Your task to perform on an android device: Open settings on Google Maps Image 0: 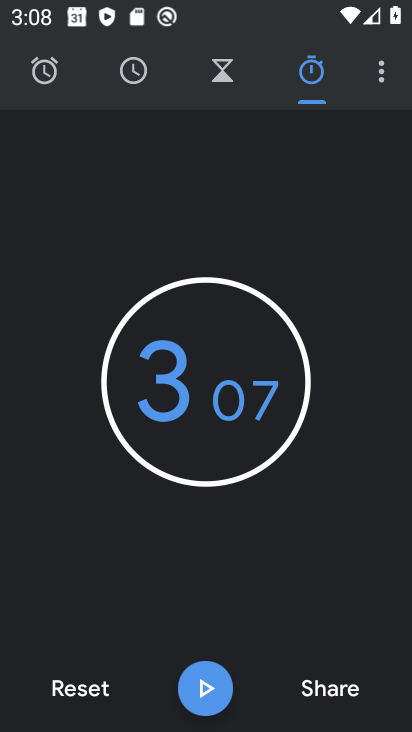
Step 0: press home button
Your task to perform on an android device: Open settings on Google Maps Image 1: 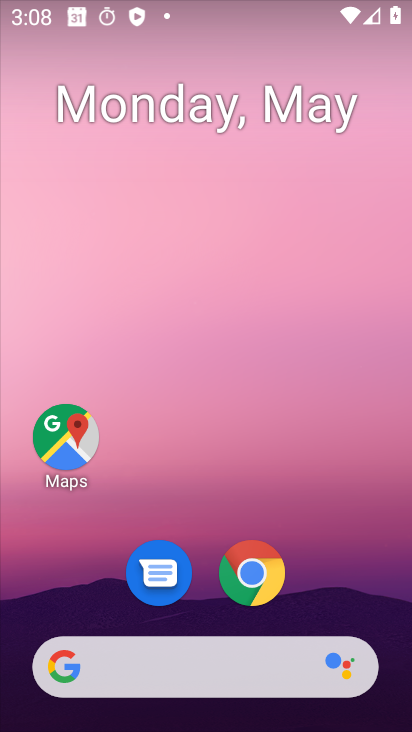
Step 1: click (74, 436)
Your task to perform on an android device: Open settings on Google Maps Image 2: 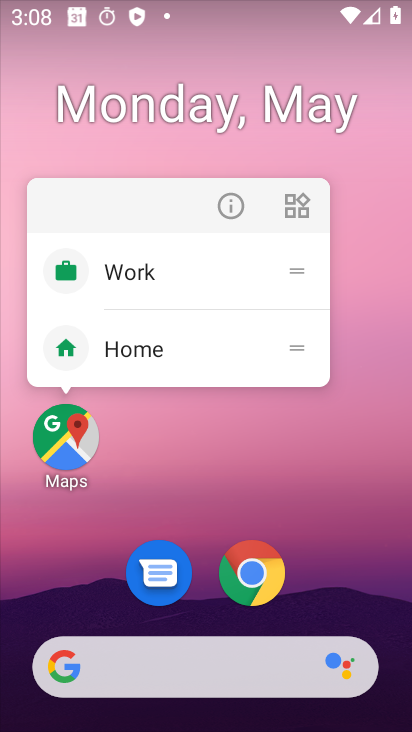
Step 2: click (76, 446)
Your task to perform on an android device: Open settings on Google Maps Image 3: 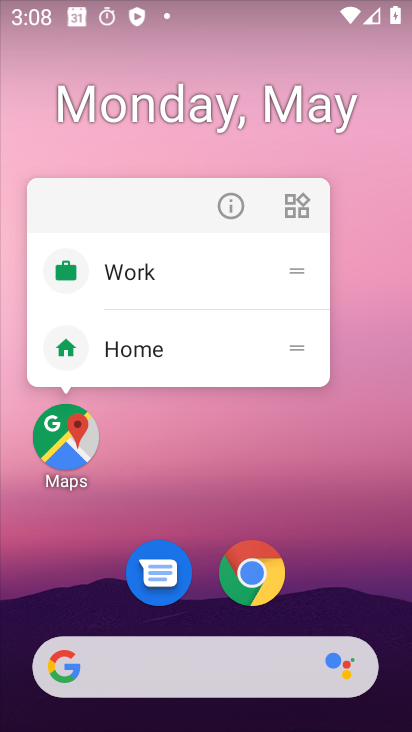
Step 3: click (75, 433)
Your task to perform on an android device: Open settings on Google Maps Image 4: 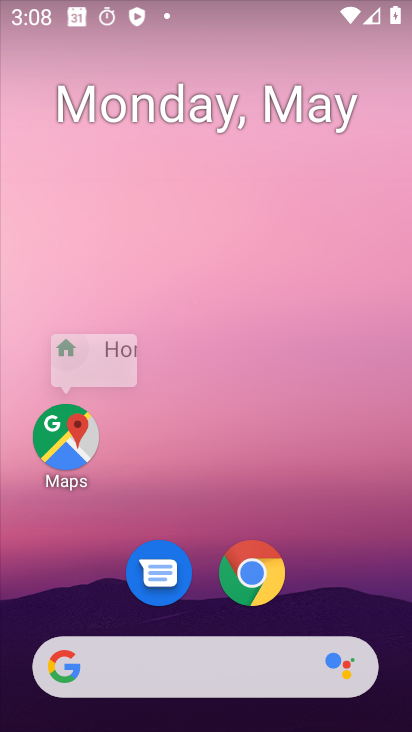
Step 4: click (76, 432)
Your task to perform on an android device: Open settings on Google Maps Image 5: 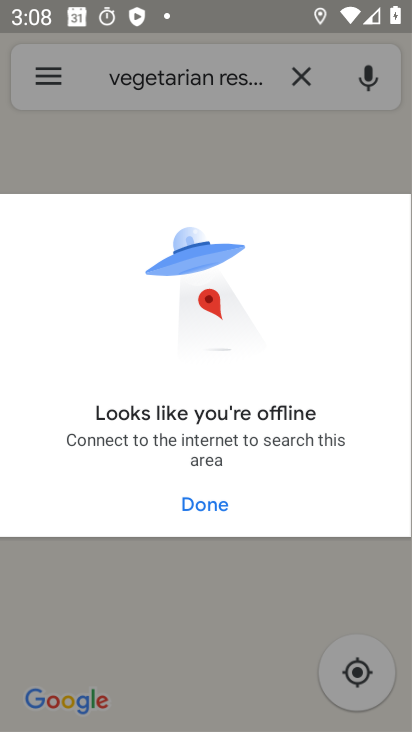
Step 5: click (76, 432)
Your task to perform on an android device: Open settings on Google Maps Image 6: 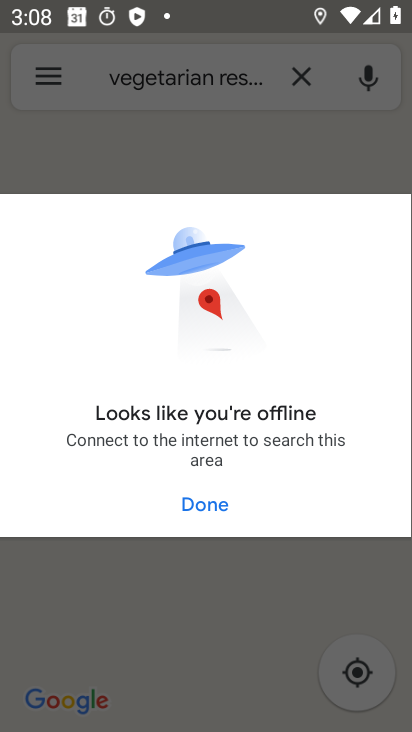
Step 6: click (276, 132)
Your task to perform on an android device: Open settings on Google Maps Image 7: 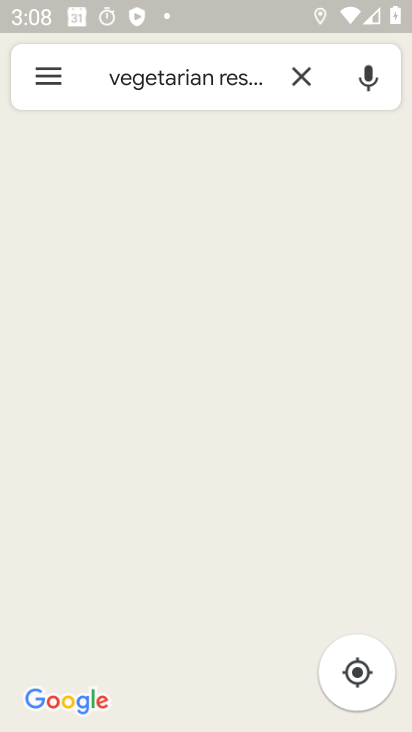
Step 7: click (206, 494)
Your task to perform on an android device: Open settings on Google Maps Image 8: 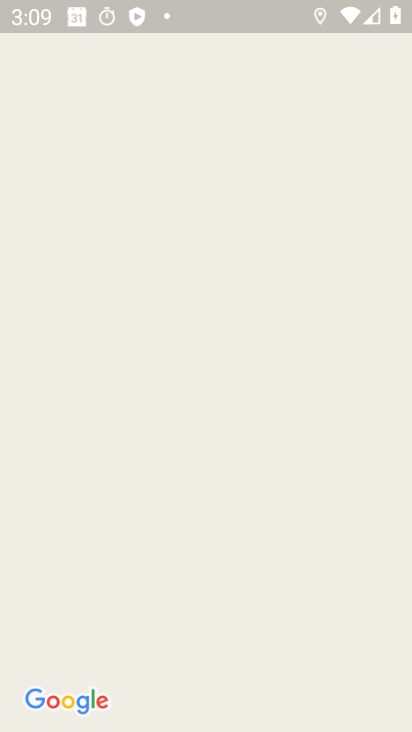
Step 8: click (278, 36)
Your task to perform on an android device: Open settings on Google Maps Image 9: 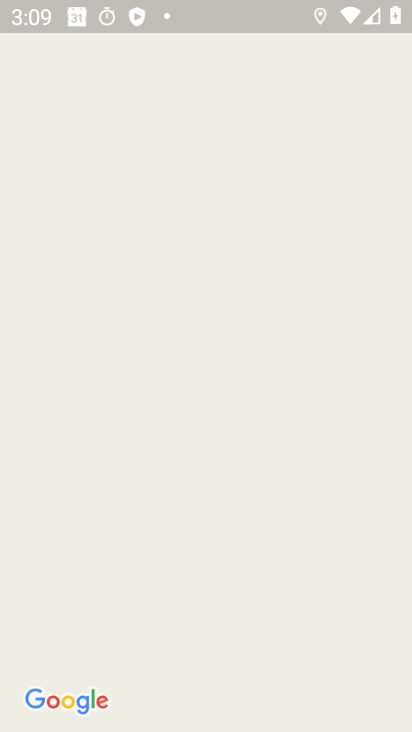
Step 9: drag from (261, 366) to (190, 2)
Your task to perform on an android device: Open settings on Google Maps Image 10: 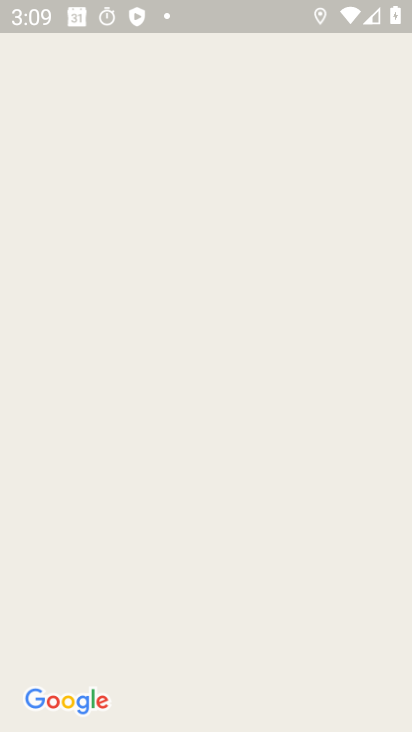
Step 10: press back button
Your task to perform on an android device: Open settings on Google Maps Image 11: 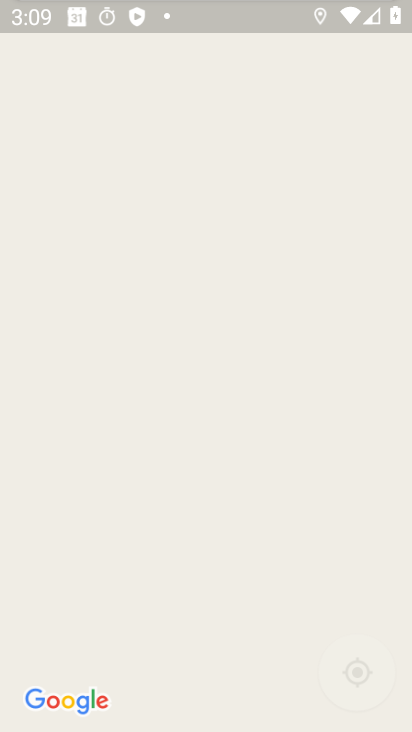
Step 11: drag from (190, 2) to (403, 298)
Your task to perform on an android device: Open settings on Google Maps Image 12: 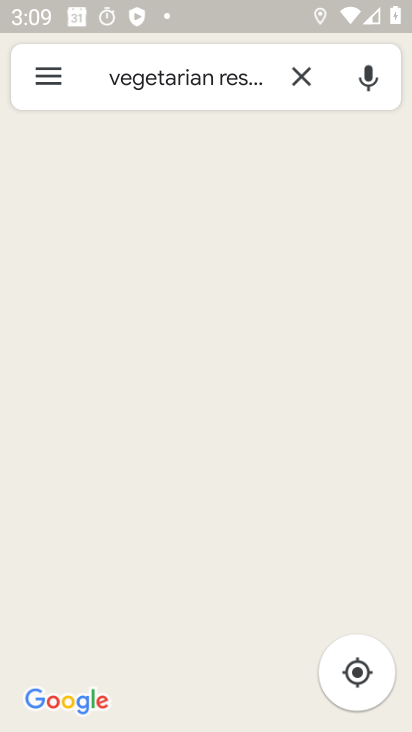
Step 12: click (47, 74)
Your task to perform on an android device: Open settings on Google Maps Image 13: 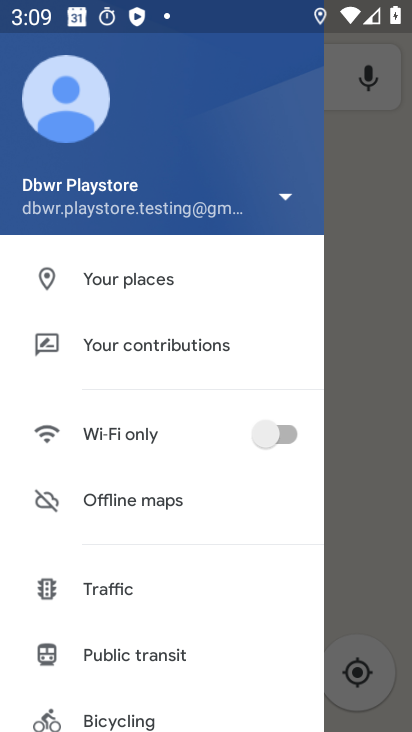
Step 13: drag from (150, 604) to (63, 180)
Your task to perform on an android device: Open settings on Google Maps Image 14: 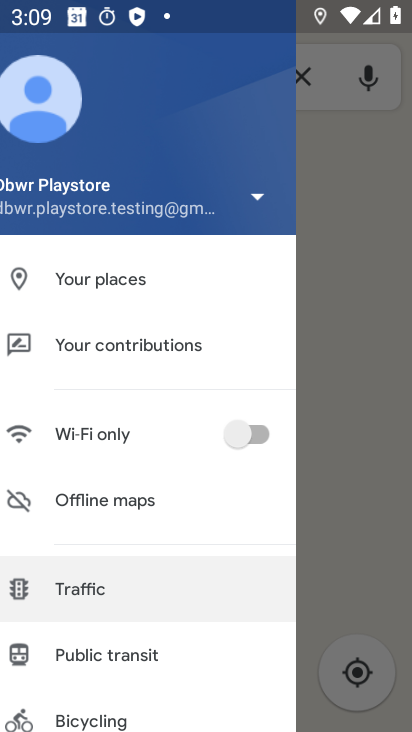
Step 14: drag from (95, 568) to (91, 187)
Your task to perform on an android device: Open settings on Google Maps Image 15: 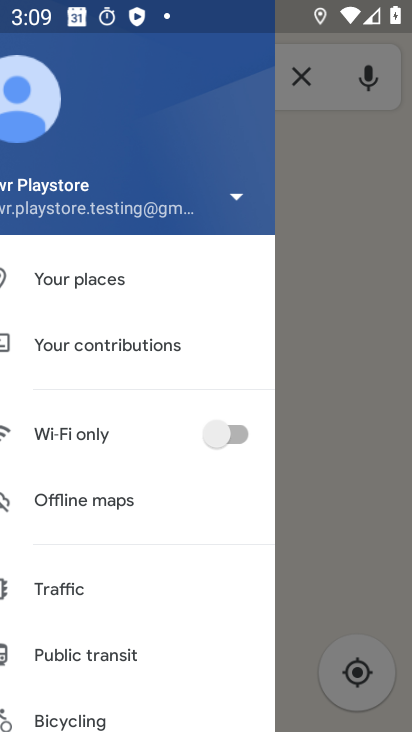
Step 15: drag from (148, 622) to (135, 216)
Your task to perform on an android device: Open settings on Google Maps Image 16: 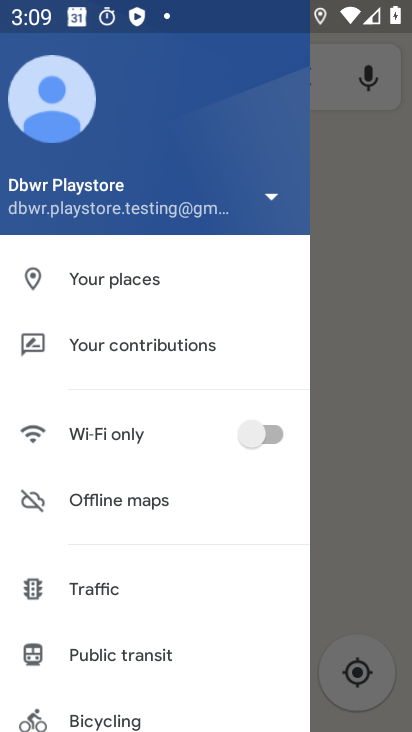
Step 16: drag from (125, 564) to (100, 264)
Your task to perform on an android device: Open settings on Google Maps Image 17: 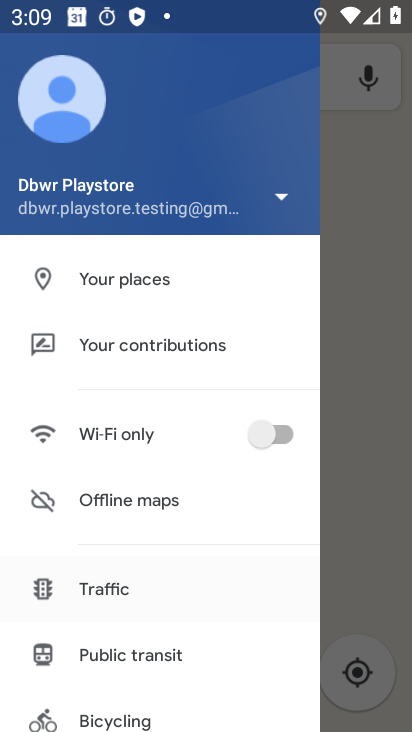
Step 17: drag from (95, 522) to (113, 181)
Your task to perform on an android device: Open settings on Google Maps Image 18: 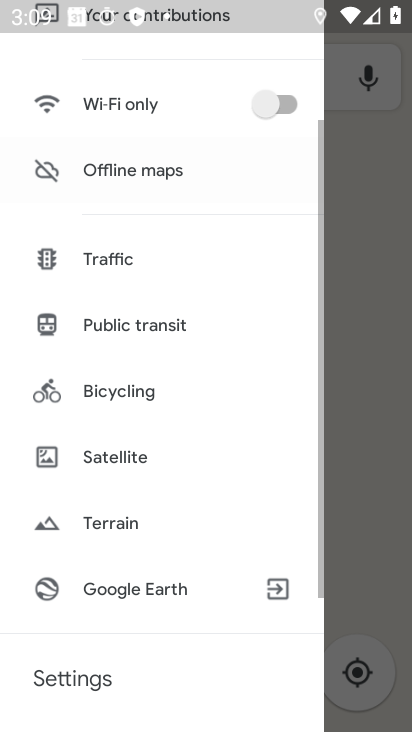
Step 18: drag from (132, 485) to (137, 142)
Your task to perform on an android device: Open settings on Google Maps Image 19: 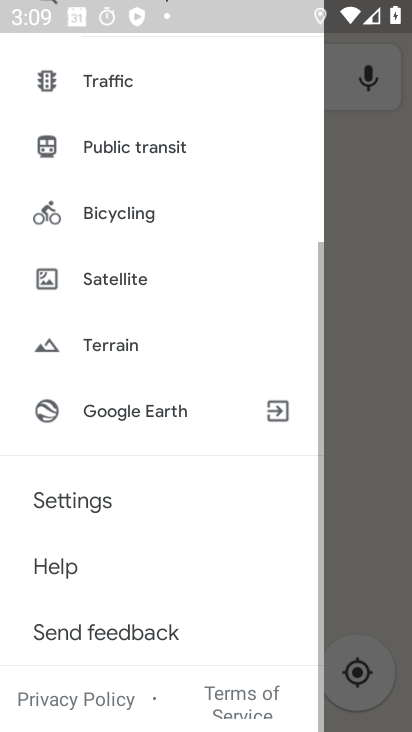
Step 19: drag from (234, 568) to (161, 11)
Your task to perform on an android device: Open settings on Google Maps Image 20: 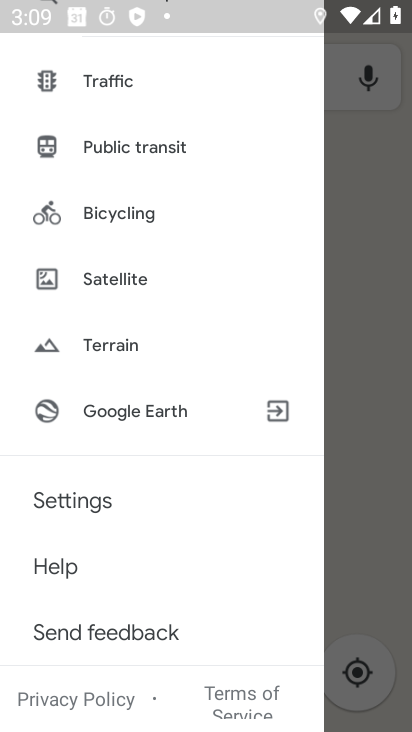
Step 20: click (60, 496)
Your task to perform on an android device: Open settings on Google Maps Image 21: 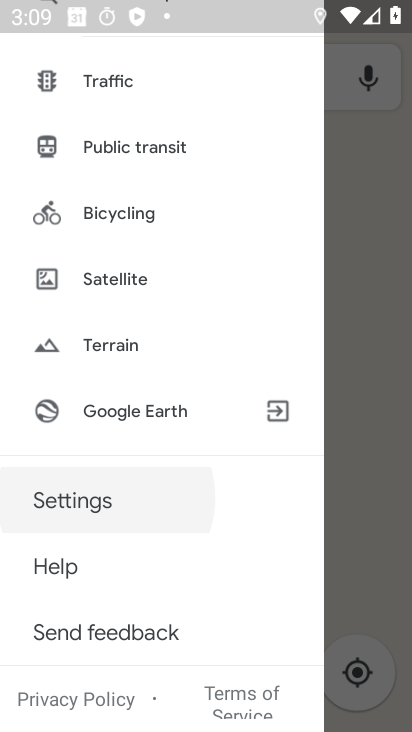
Step 21: click (54, 499)
Your task to perform on an android device: Open settings on Google Maps Image 22: 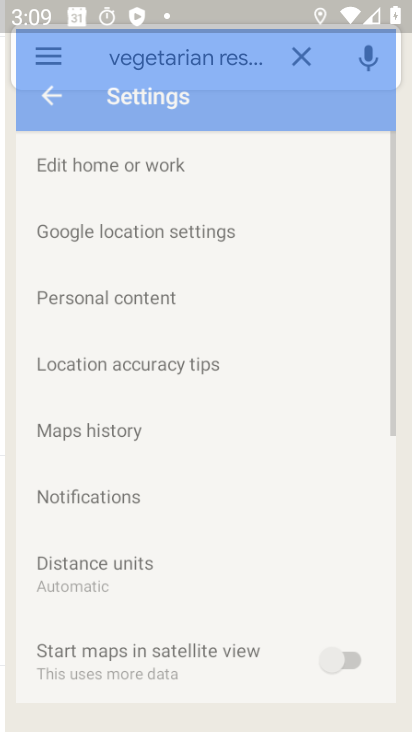
Step 22: click (44, 520)
Your task to perform on an android device: Open settings on Google Maps Image 23: 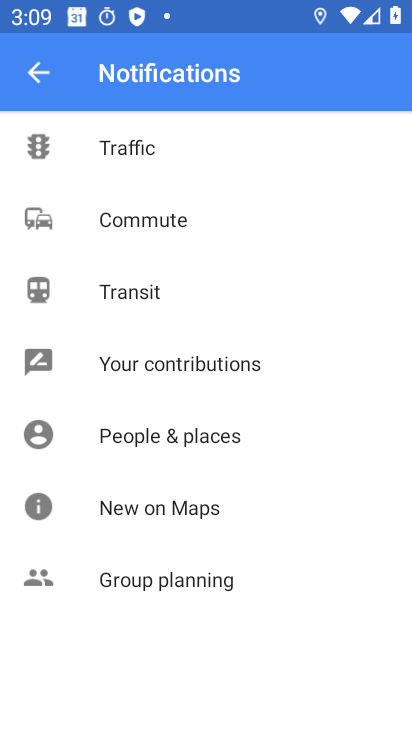
Step 23: task complete